Your task to perform on an android device: Open the web browser Image 0: 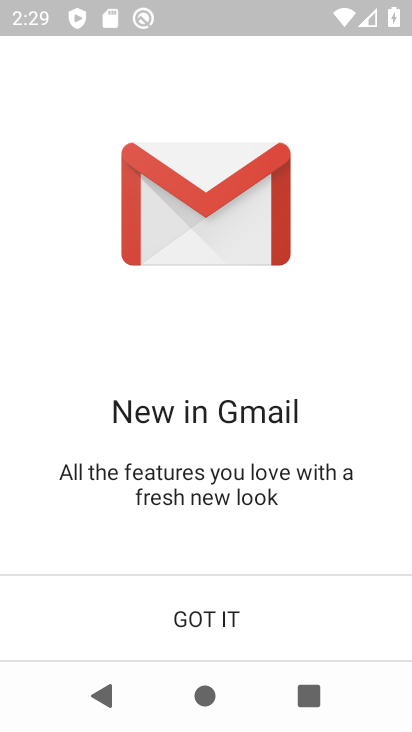
Step 0: press home button
Your task to perform on an android device: Open the web browser Image 1: 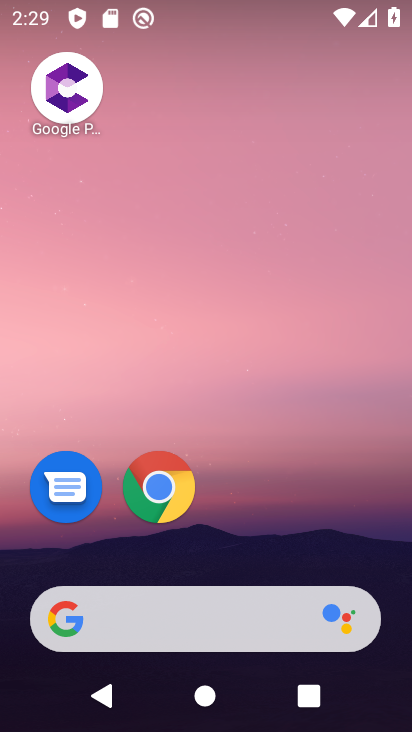
Step 1: drag from (369, 542) to (320, 104)
Your task to perform on an android device: Open the web browser Image 2: 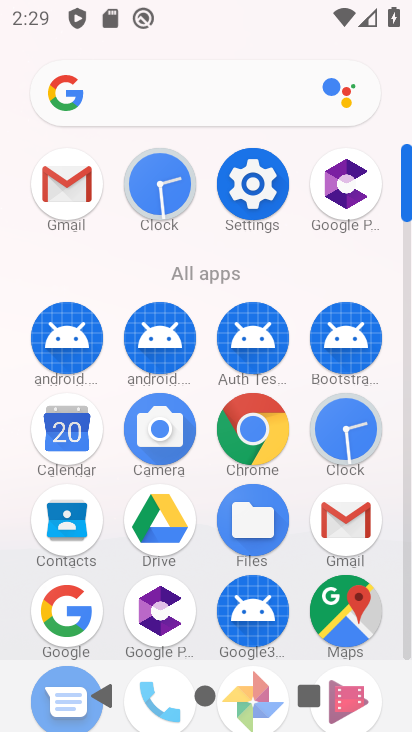
Step 2: click (258, 412)
Your task to perform on an android device: Open the web browser Image 3: 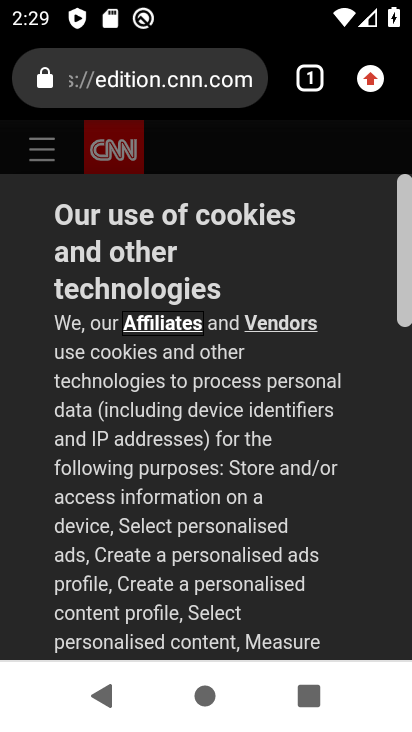
Step 3: task complete